Your task to perform on an android device: change alarm snooze length Image 0: 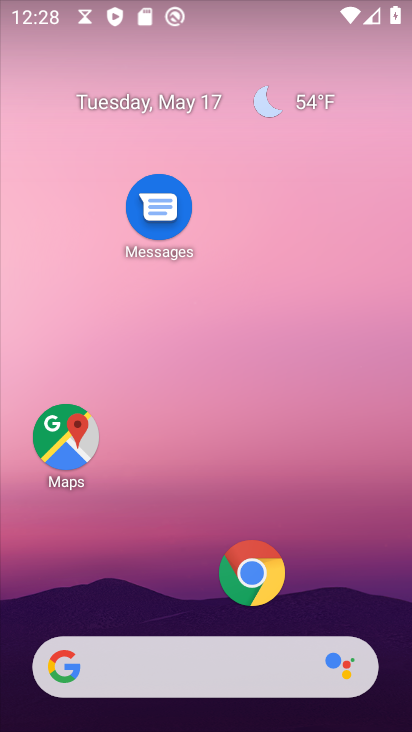
Step 0: press home button
Your task to perform on an android device: change alarm snooze length Image 1: 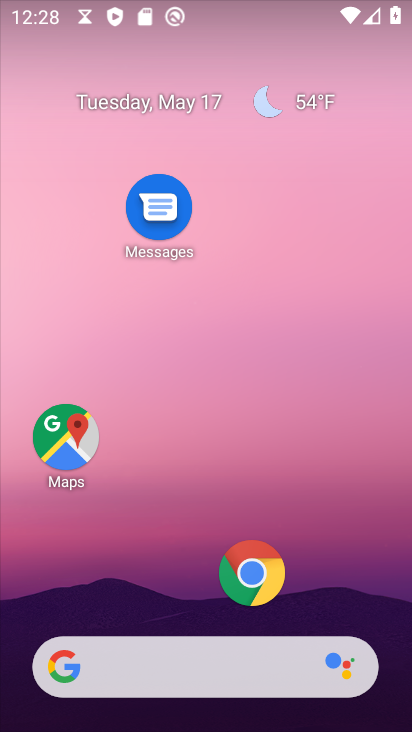
Step 1: drag from (203, 612) to (200, 90)
Your task to perform on an android device: change alarm snooze length Image 2: 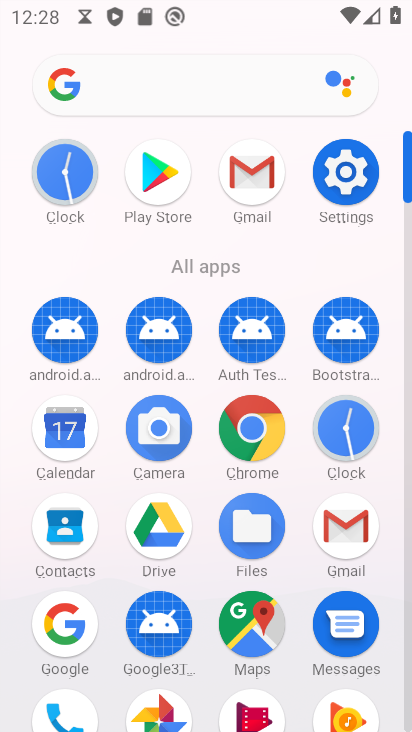
Step 2: click (347, 422)
Your task to perform on an android device: change alarm snooze length Image 3: 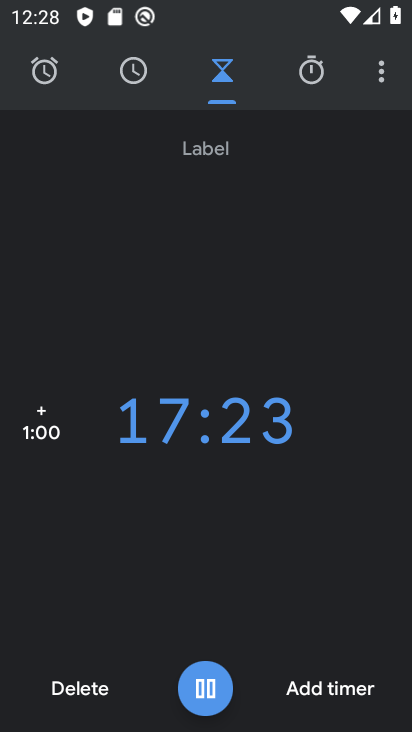
Step 3: click (378, 64)
Your task to perform on an android device: change alarm snooze length Image 4: 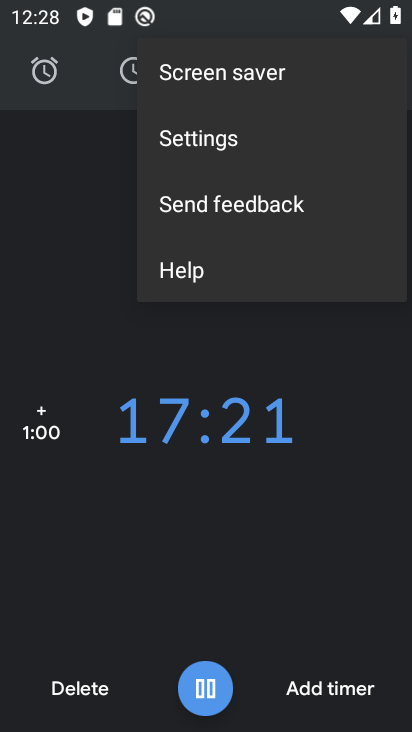
Step 4: click (252, 140)
Your task to perform on an android device: change alarm snooze length Image 5: 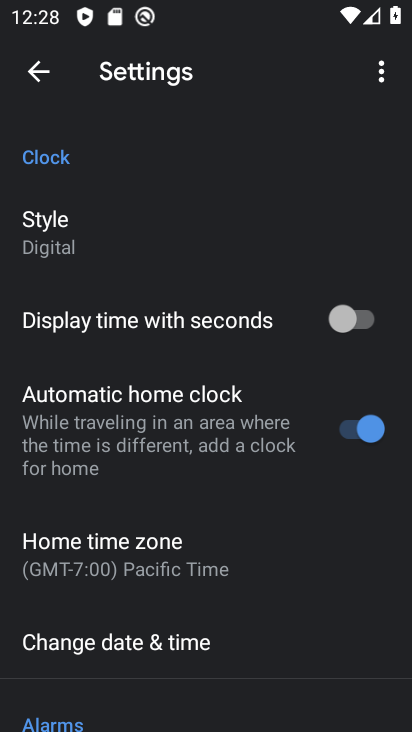
Step 5: drag from (229, 624) to (225, 451)
Your task to perform on an android device: change alarm snooze length Image 6: 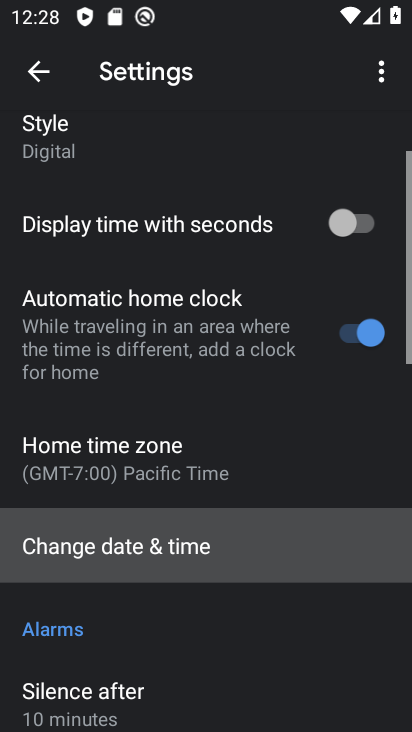
Step 6: drag from (227, 321) to (228, 186)
Your task to perform on an android device: change alarm snooze length Image 7: 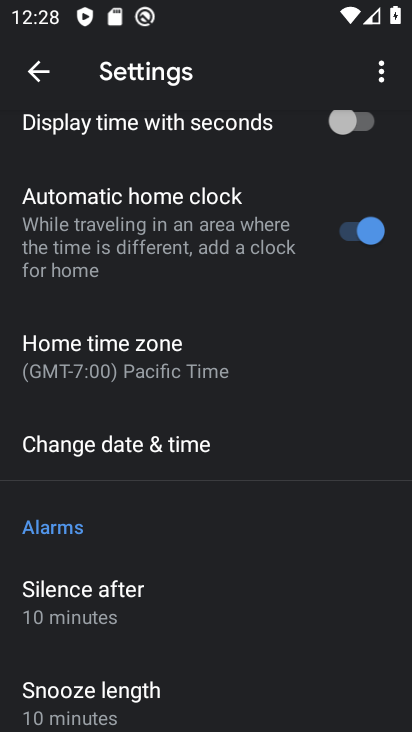
Step 7: click (185, 698)
Your task to perform on an android device: change alarm snooze length Image 8: 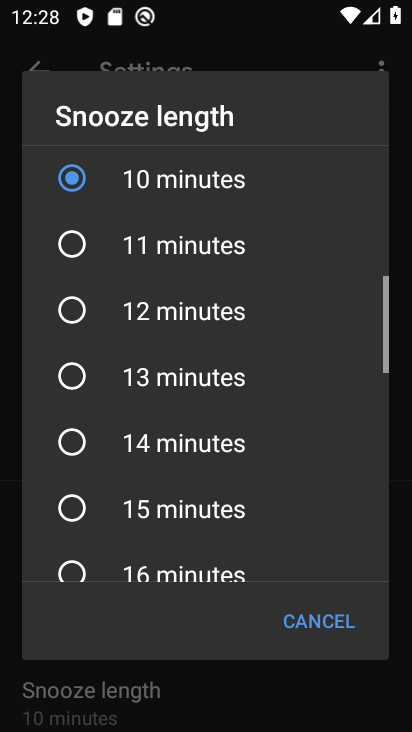
Step 8: drag from (140, 194) to (143, 539)
Your task to perform on an android device: change alarm snooze length Image 9: 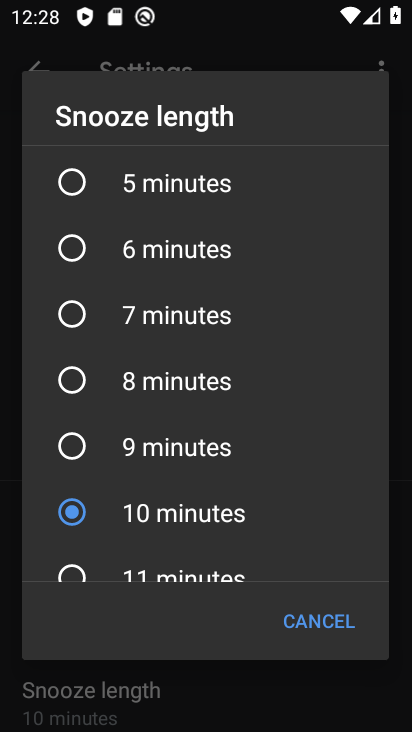
Step 9: click (76, 173)
Your task to perform on an android device: change alarm snooze length Image 10: 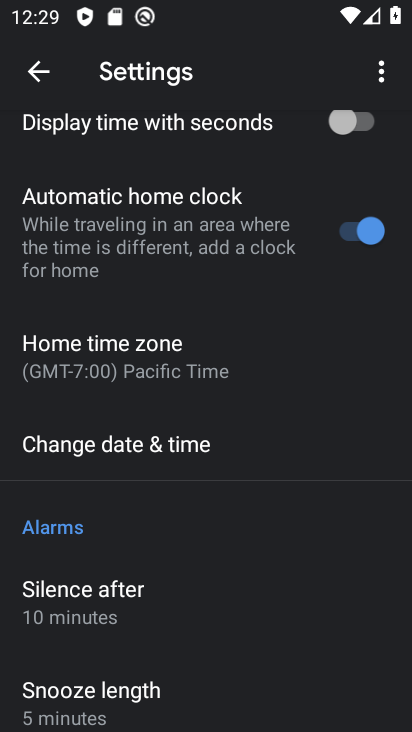
Step 10: task complete